Your task to perform on an android device: move an email to a new category in the gmail app Image 0: 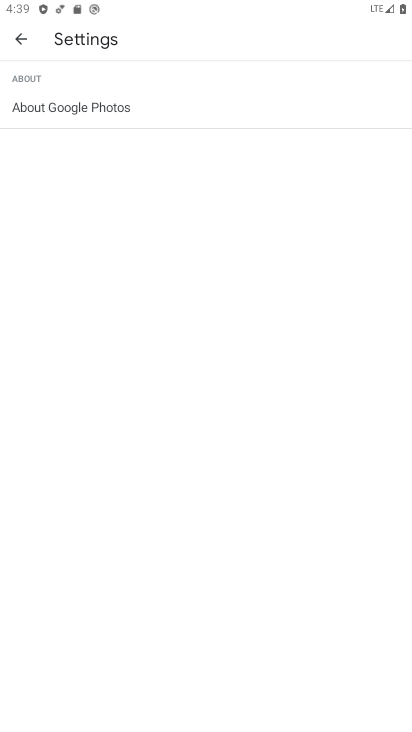
Step 0: press back button
Your task to perform on an android device: move an email to a new category in the gmail app Image 1: 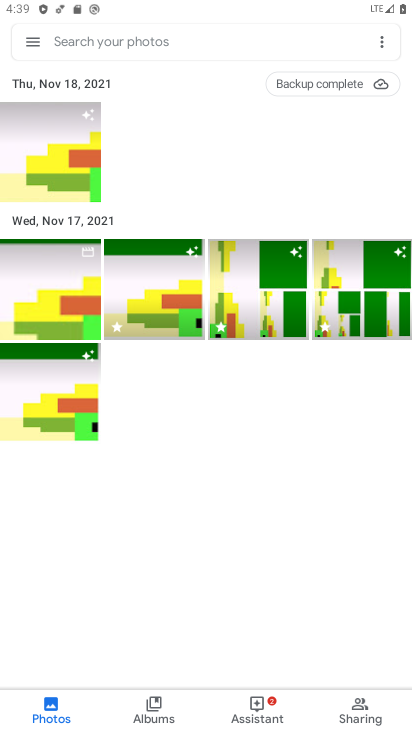
Step 1: press home button
Your task to perform on an android device: move an email to a new category in the gmail app Image 2: 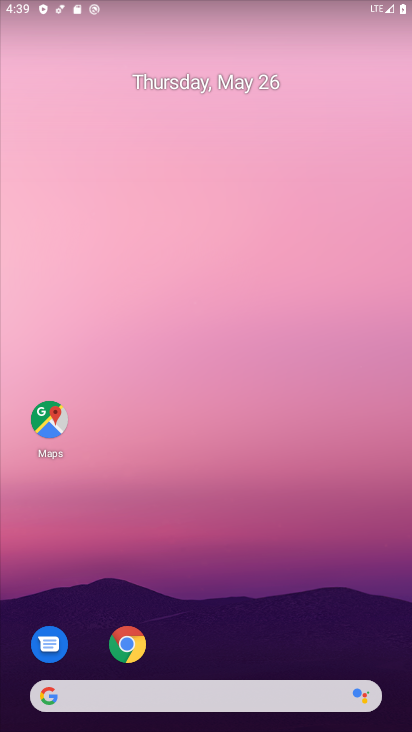
Step 2: drag from (247, 524) to (189, 14)
Your task to perform on an android device: move an email to a new category in the gmail app Image 3: 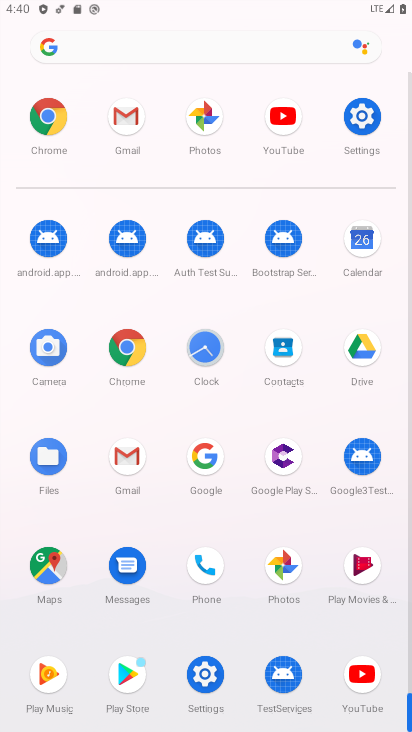
Step 3: click (126, 448)
Your task to perform on an android device: move an email to a new category in the gmail app Image 4: 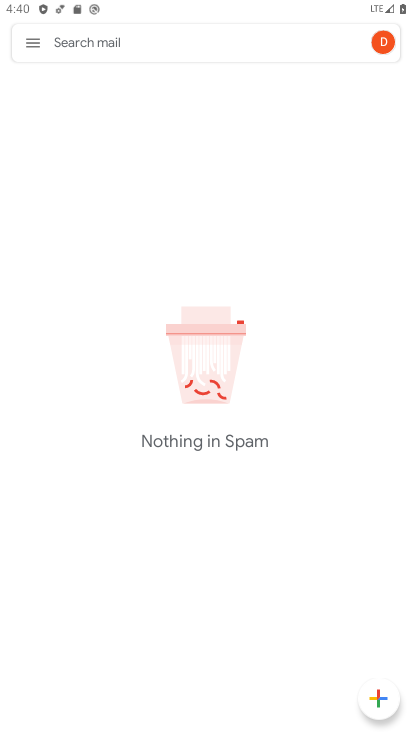
Step 4: click (38, 52)
Your task to perform on an android device: move an email to a new category in the gmail app Image 5: 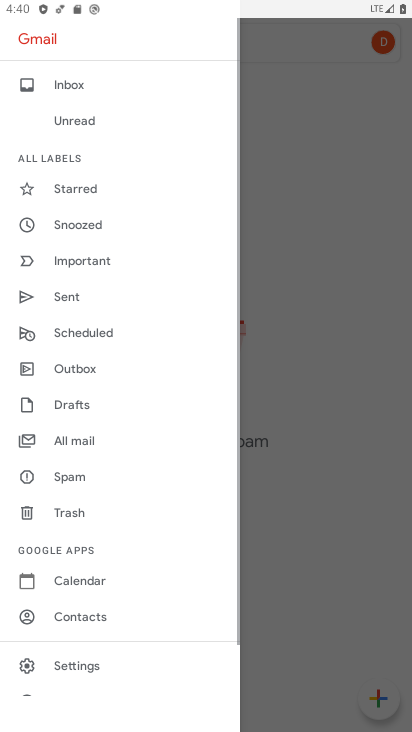
Step 5: drag from (201, 216) to (206, 569)
Your task to perform on an android device: move an email to a new category in the gmail app Image 6: 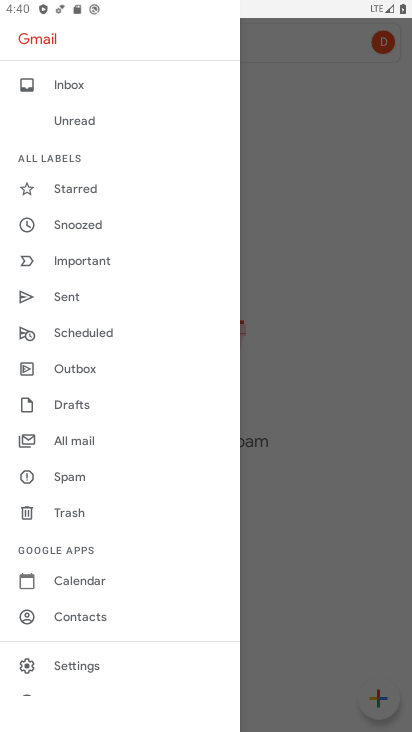
Step 6: click (112, 90)
Your task to perform on an android device: move an email to a new category in the gmail app Image 7: 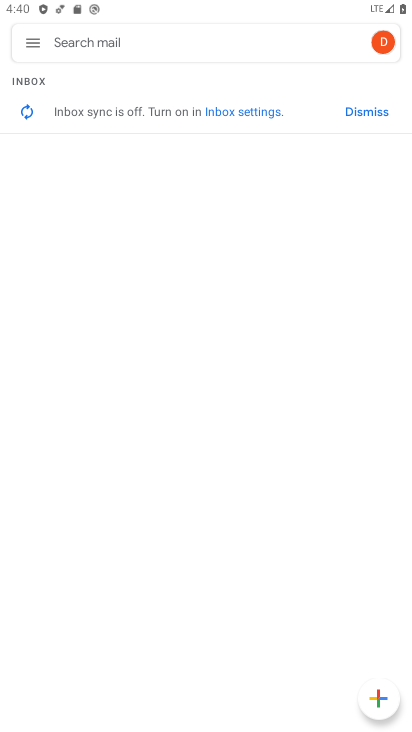
Step 7: click (37, 46)
Your task to perform on an android device: move an email to a new category in the gmail app Image 8: 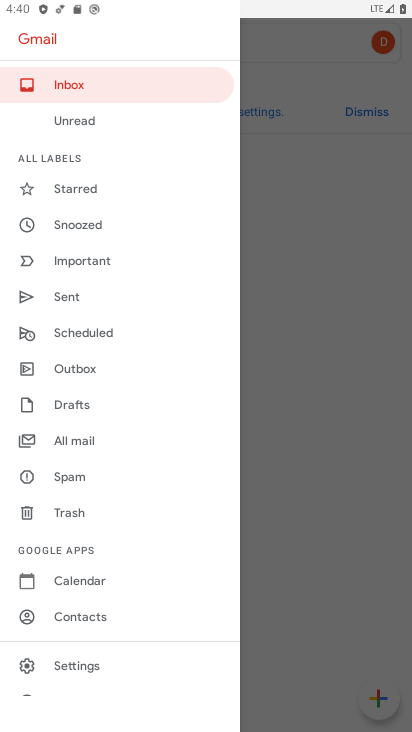
Step 8: click (104, 441)
Your task to perform on an android device: move an email to a new category in the gmail app Image 9: 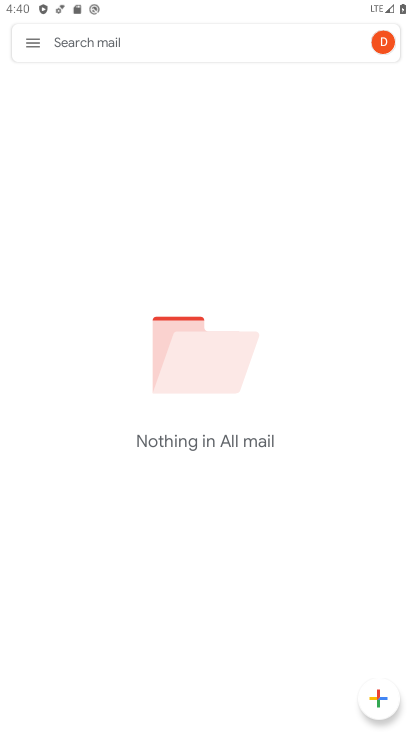
Step 9: click (35, 41)
Your task to perform on an android device: move an email to a new category in the gmail app Image 10: 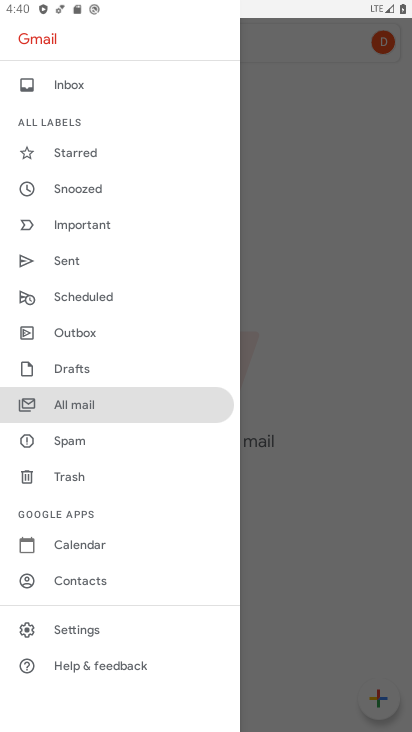
Step 10: drag from (157, 312) to (190, 545)
Your task to perform on an android device: move an email to a new category in the gmail app Image 11: 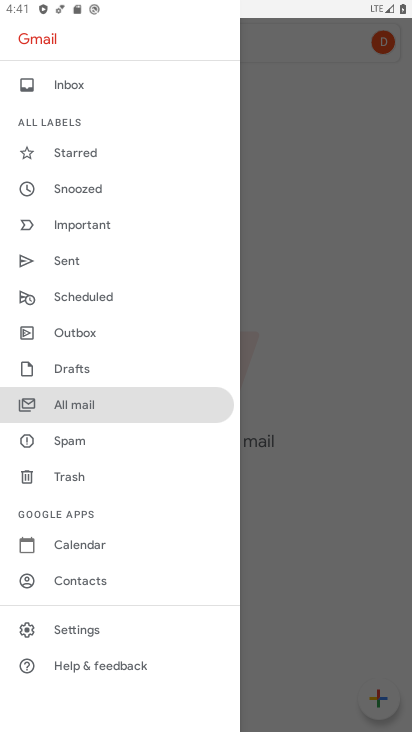
Step 11: click (103, 222)
Your task to perform on an android device: move an email to a new category in the gmail app Image 12: 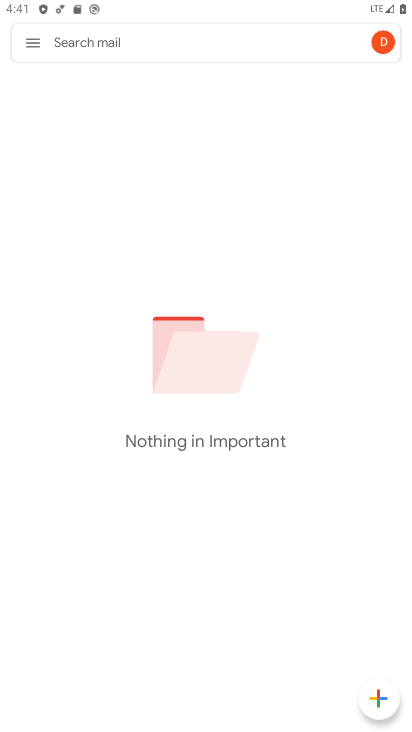
Step 12: click (33, 45)
Your task to perform on an android device: move an email to a new category in the gmail app Image 13: 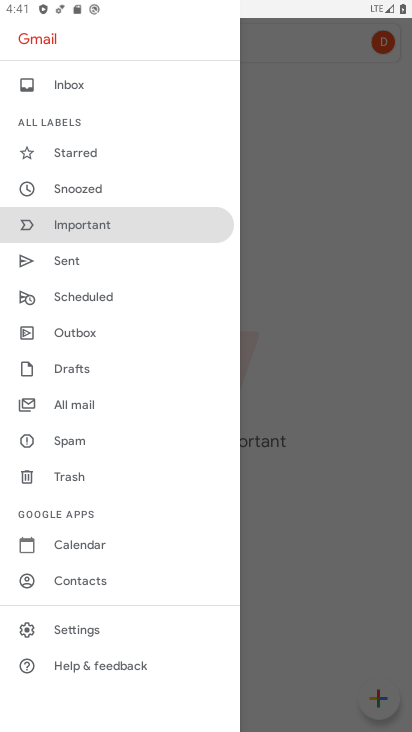
Step 13: click (106, 296)
Your task to perform on an android device: move an email to a new category in the gmail app Image 14: 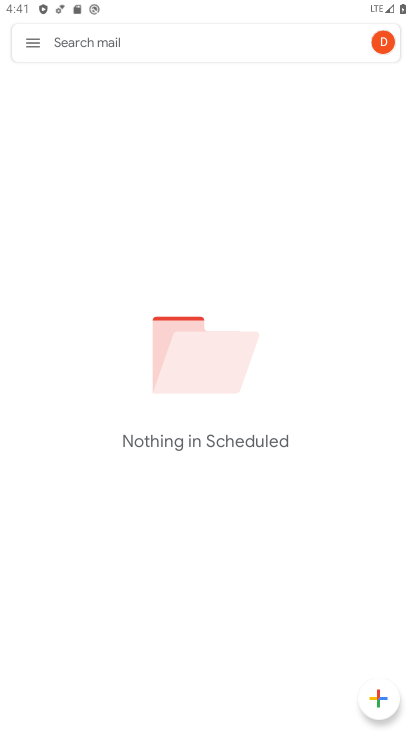
Step 14: click (35, 38)
Your task to perform on an android device: move an email to a new category in the gmail app Image 15: 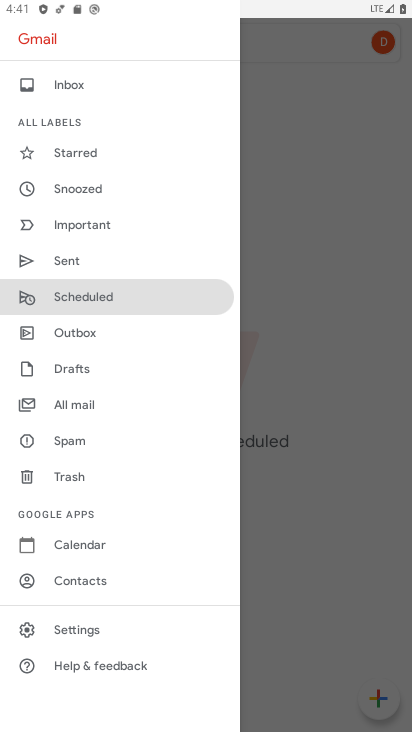
Step 15: click (86, 392)
Your task to perform on an android device: move an email to a new category in the gmail app Image 16: 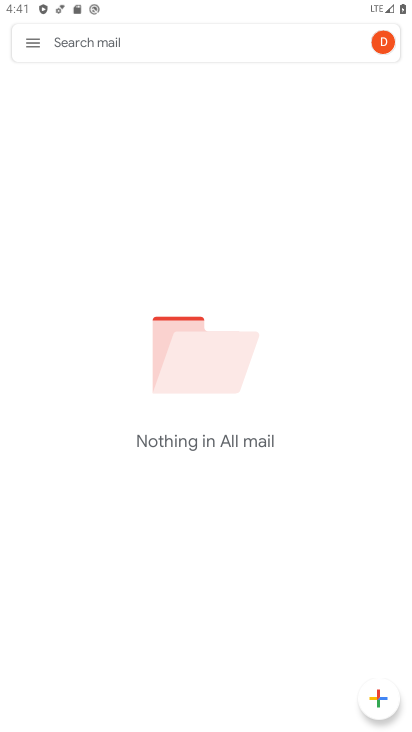
Step 16: task complete